Your task to perform on an android device: allow cookies in the chrome app Image 0: 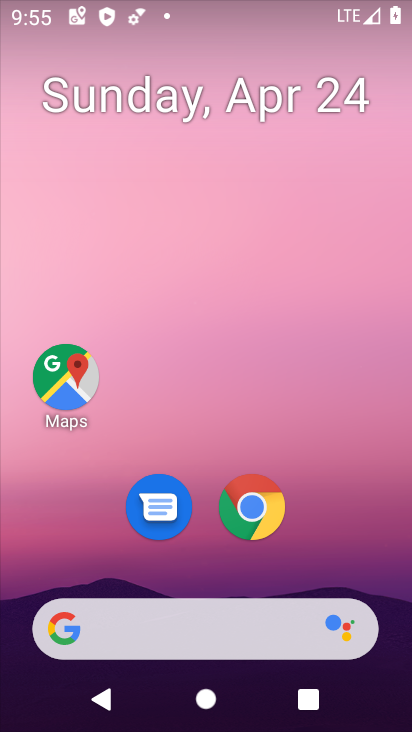
Step 0: click (258, 516)
Your task to perform on an android device: allow cookies in the chrome app Image 1: 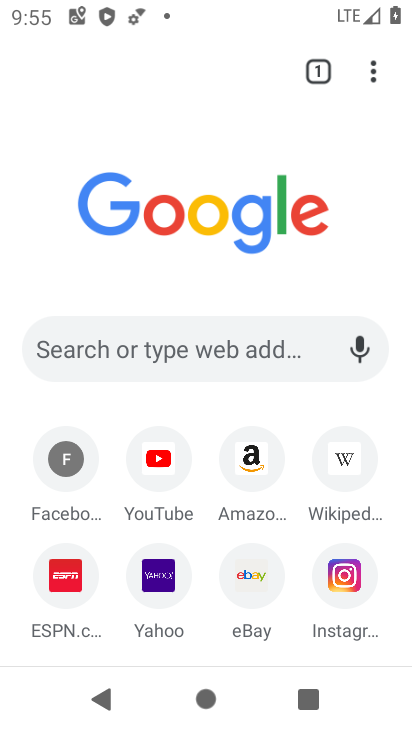
Step 1: click (379, 77)
Your task to perform on an android device: allow cookies in the chrome app Image 2: 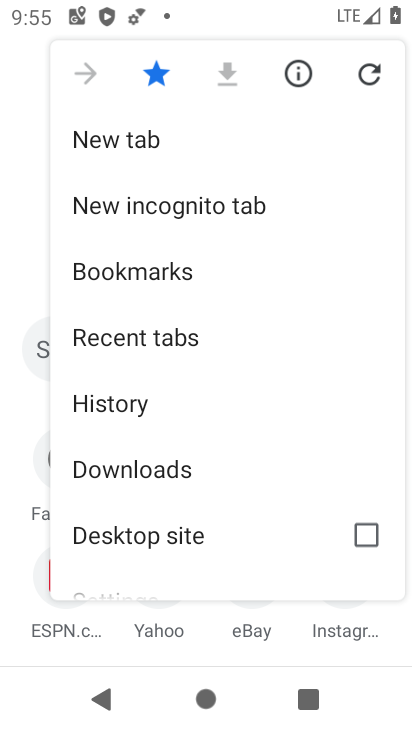
Step 2: drag from (219, 539) to (220, 168)
Your task to perform on an android device: allow cookies in the chrome app Image 3: 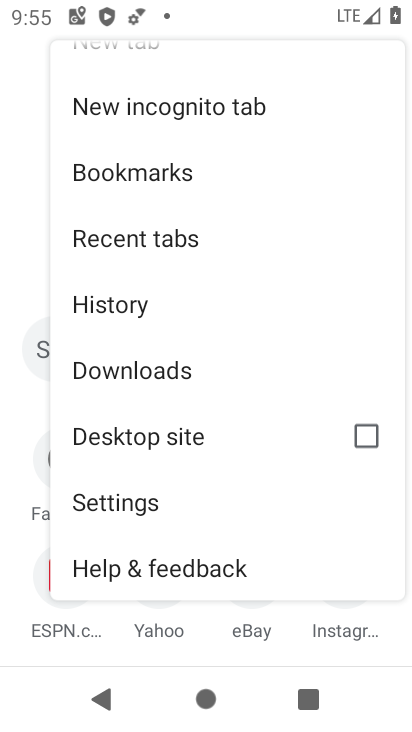
Step 3: click (129, 516)
Your task to perform on an android device: allow cookies in the chrome app Image 4: 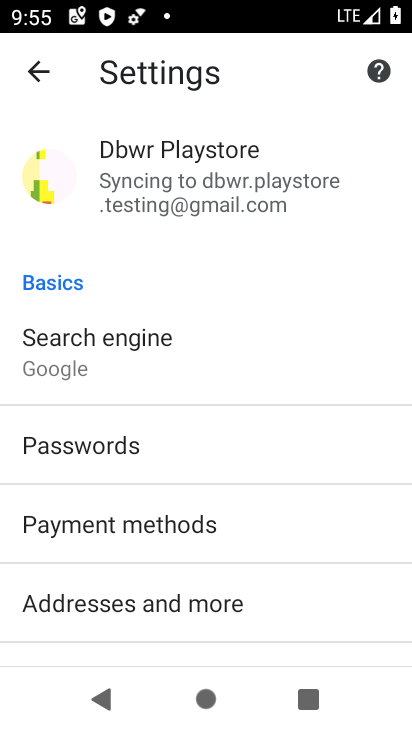
Step 4: drag from (120, 567) to (122, 203)
Your task to perform on an android device: allow cookies in the chrome app Image 5: 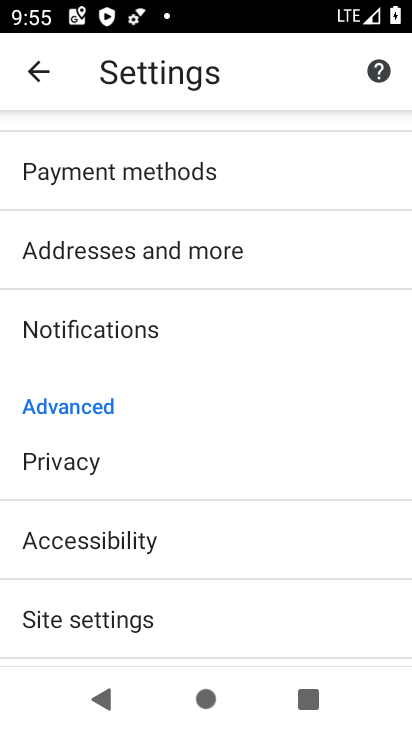
Step 5: drag from (100, 617) to (130, 275)
Your task to perform on an android device: allow cookies in the chrome app Image 6: 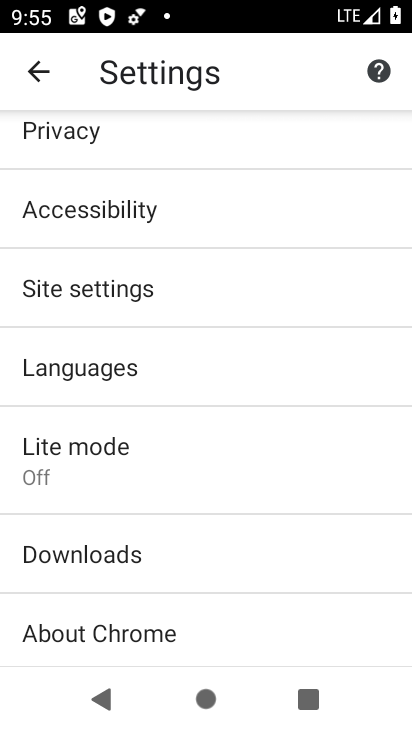
Step 6: click (80, 294)
Your task to perform on an android device: allow cookies in the chrome app Image 7: 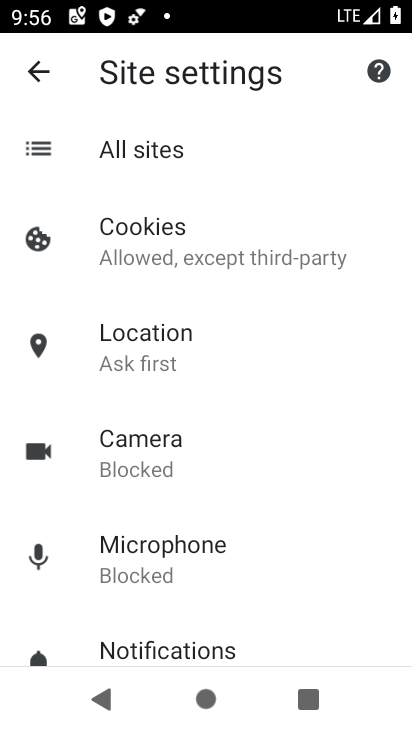
Step 7: click (167, 246)
Your task to perform on an android device: allow cookies in the chrome app Image 8: 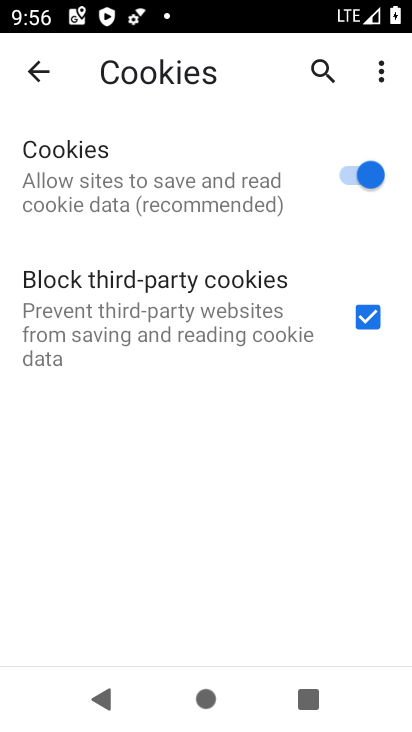
Step 8: task complete